Your task to perform on an android device: View the shopping cart on newegg. Add "asus rog" to the cart on newegg Image 0: 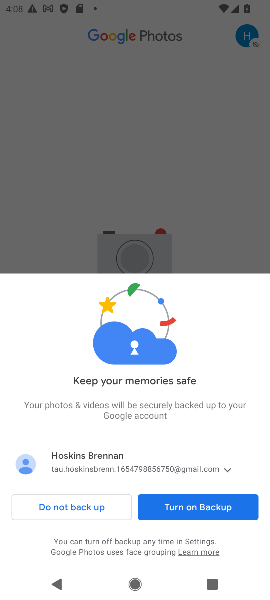
Step 0: press home button
Your task to perform on an android device: View the shopping cart on newegg. Add "asus rog" to the cart on newegg Image 1: 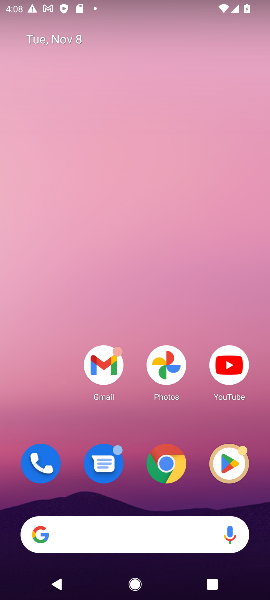
Step 1: click (161, 453)
Your task to perform on an android device: View the shopping cart on newegg. Add "asus rog" to the cart on newegg Image 2: 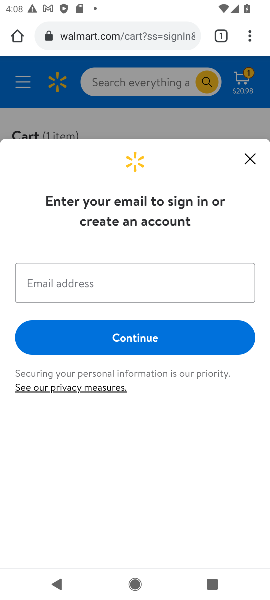
Step 2: click (119, 39)
Your task to perform on an android device: View the shopping cart on newegg. Add "asus rog" to the cart on newegg Image 3: 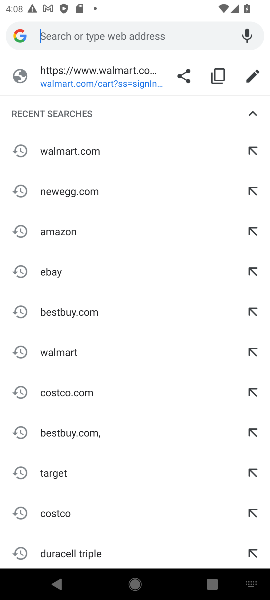
Step 3: click (54, 198)
Your task to perform on an android device: View the shopping cart on newegg. Add "asus rog" to the cart on newegg Image 4: 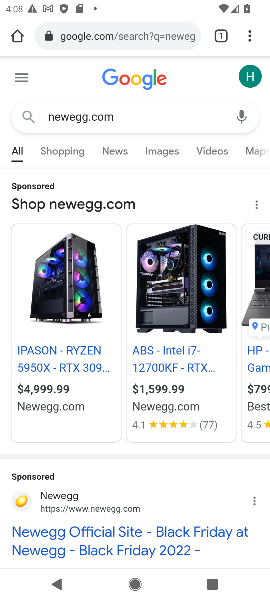
Step 4: click (86, 522)
Your task to perform on an android device: View the shopping cart on newegg. Add "asus rog" to the cart on newegg Image 5: 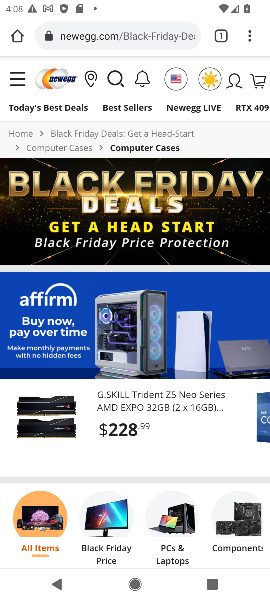
Step 5: click (257, 82)
Your task to perform on an android device: View the shopping cart on newegg. Add "asus rog" to the cart on newegg Image 6: 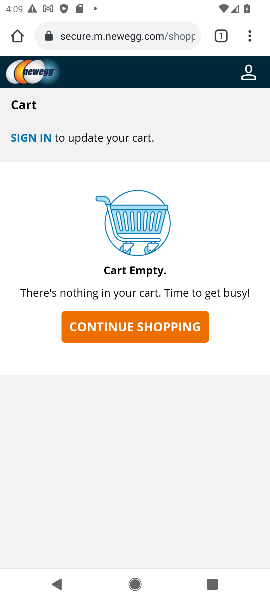
Step 6: click (141, 326)
Your task to perform on an android device: View the shopping cart on newegg. Add "asus rog" to the cart on newegg Image 7: 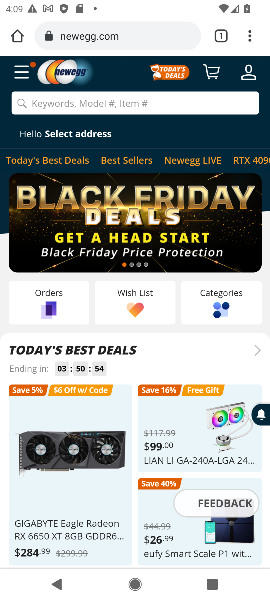
Step 7: click (142, 106)
Your task to perform on an android device: View the shopping cart on newegg. Add "asus rog" to the cart on newegg Image 8: 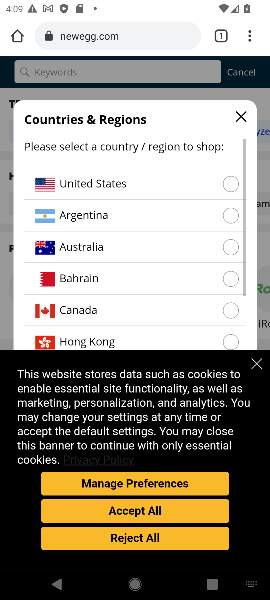
Step 8: type "asus rog"
Your task to perform on an android device: View the shopping cart on newegg. Add "asus rog" to the cart on newegg Image 9: 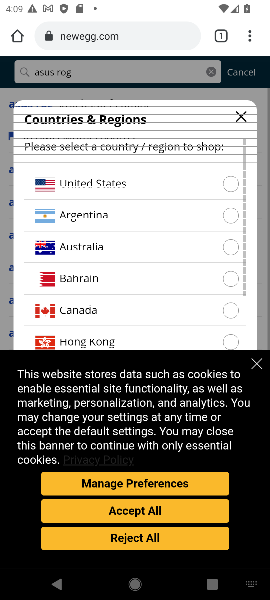
Step 9: click (87, 508)
Your task to perform on an android device: View the shopping cart on newegg. Add "asus rog" to the cart on newegg Image 10: 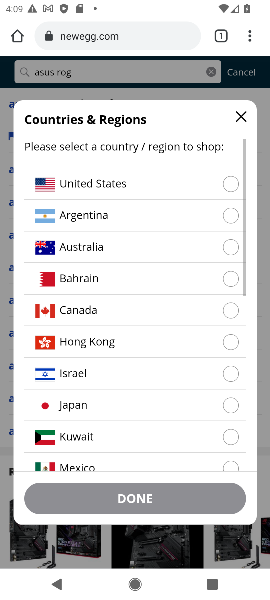
Step 10: click (227, 183)
Your task to perform on an android device: View the shopping cart on newegg. Add "asus rog" to the cart on newegg Image 11: 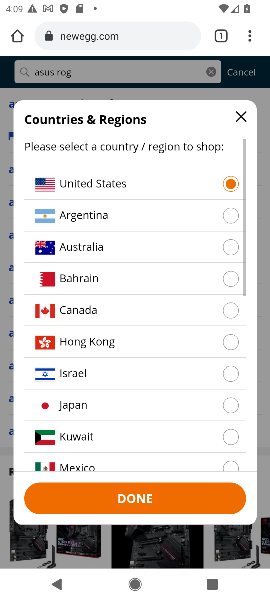
Step 11: click (139, 496)
Your task to perform on an android device: View the shopping cart on newegg. Add "asus rog" to the cart on newegg Image 12: 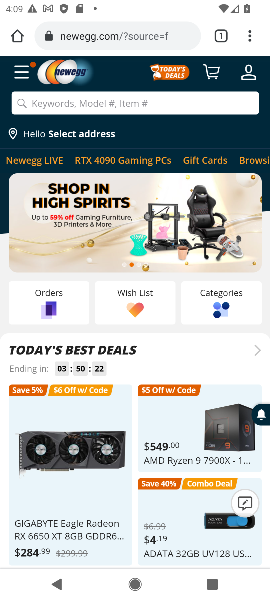
Step 12: click (81, 104)
Your task to perform on an android device: View the shopping cart on newegg. Add "asus rog" to the cart on newegg Image 13: 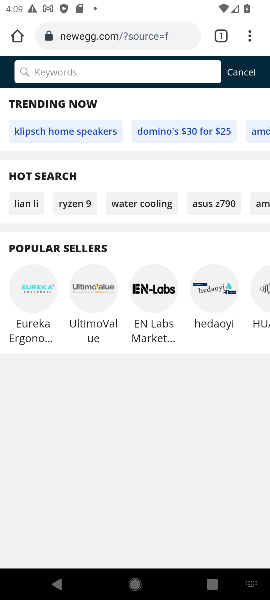
Step 13: type "asus rog"
Your task to perform on an android device: View the shopping cart on newegg. Add "asus rog" to the cart on newegg Image 14: 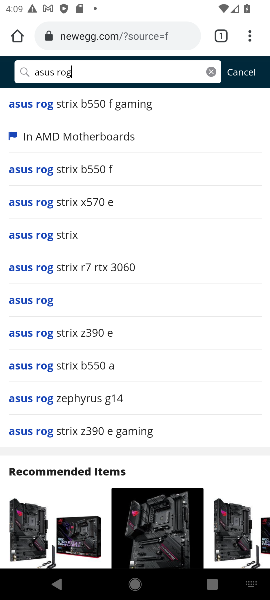
Step 14: click (28, 298)
Your task to perform on an android device: View the shopping cart on newegg. Add "asus rog" to the cart on newegg Image 15: 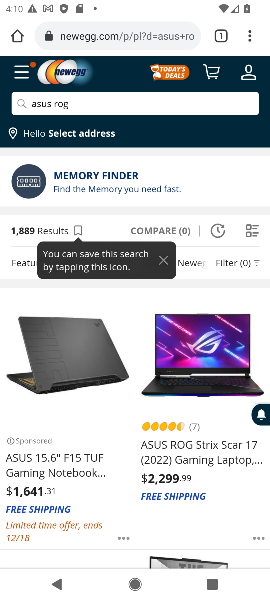
Step 15: click (190, 433)
Your task to perform on an android device: View the shopping cart on newegg. Add "asus rog" to the cart on newegg Image 16: 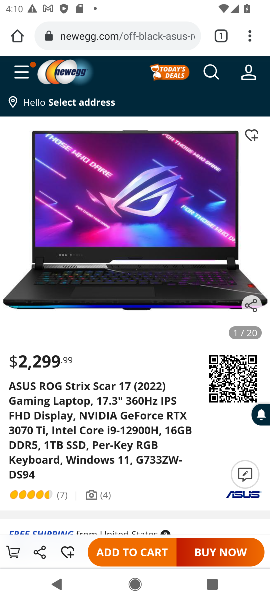
Step 16: click (142, 552)
Your task to perform on an android device: View the shopping cart on newegg. Add "asus rog" to the cart on newegg Image 17: 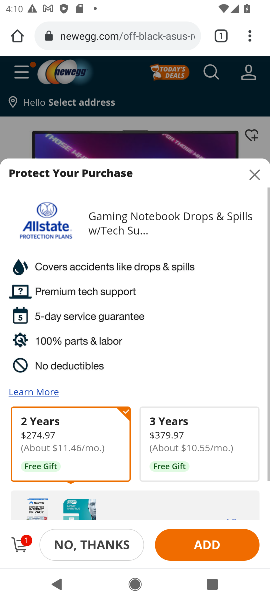
Step 17: task complete